Your task to perform on an android device: search for starred emails in the gmail app Image 0: 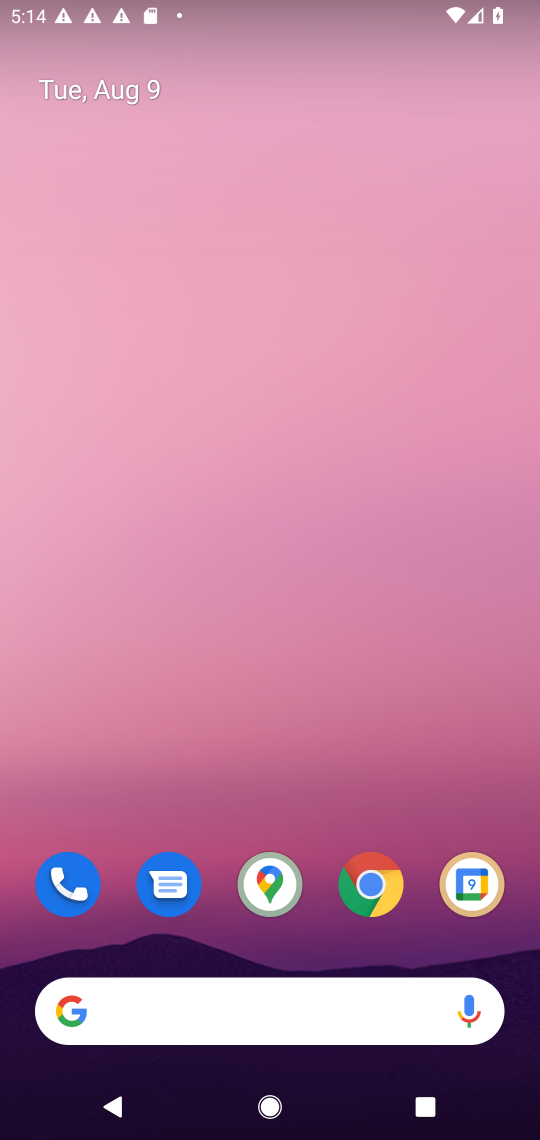
Step 0: drag from (216, 995) to (250, 201)
Your task to perform on an android device: search for starred emails in the gmail app Image 1: 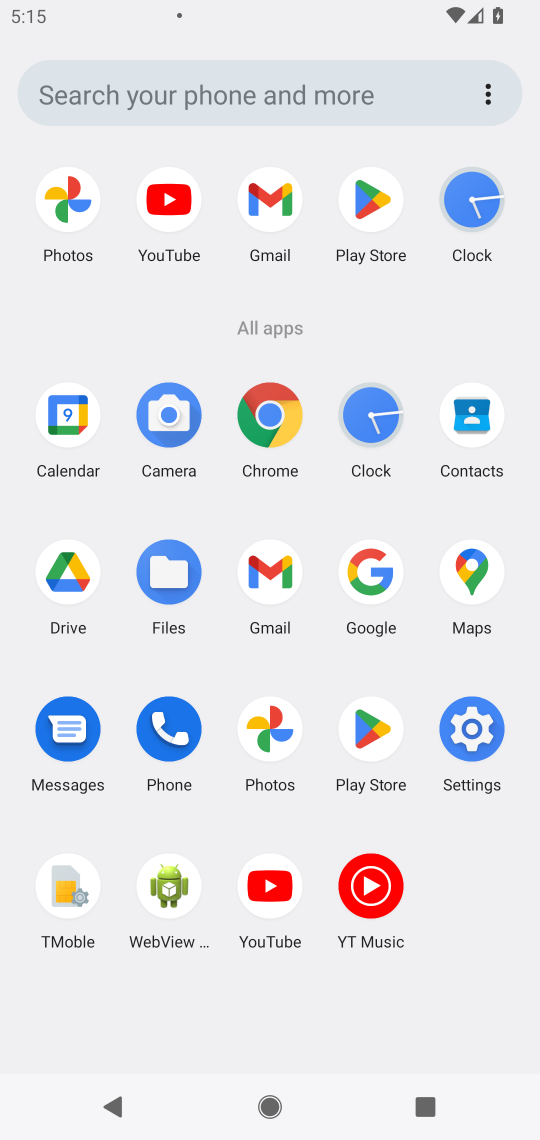
Step 1: click (270, 203)
Your task to perform on an android device: search for starred emails in the gmail app Image 2: 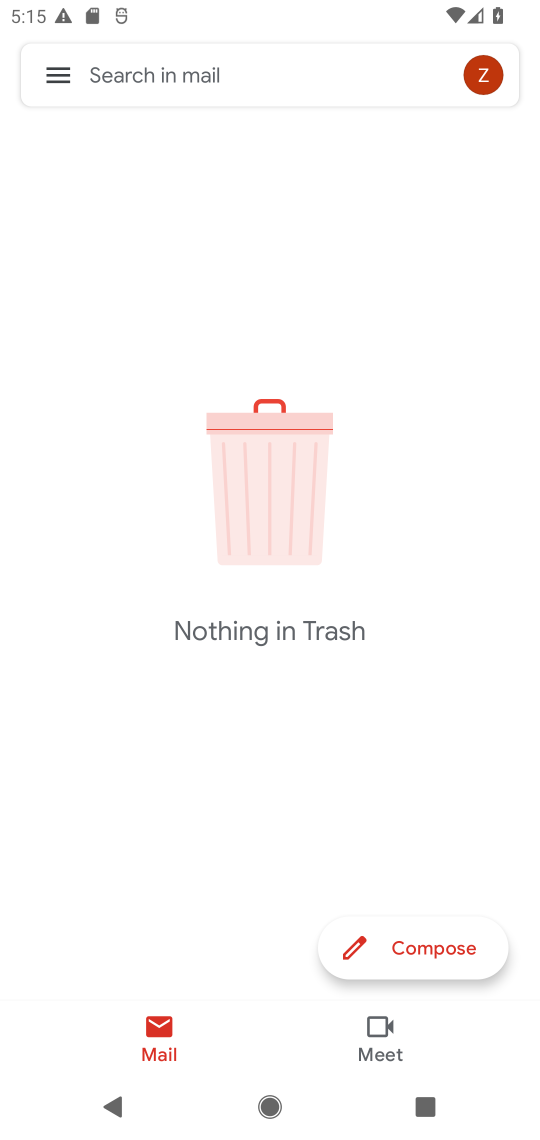
Step 2: click (64, 75)
Your task to perform on an android device: search for starred emails in the gmail app Image 3: 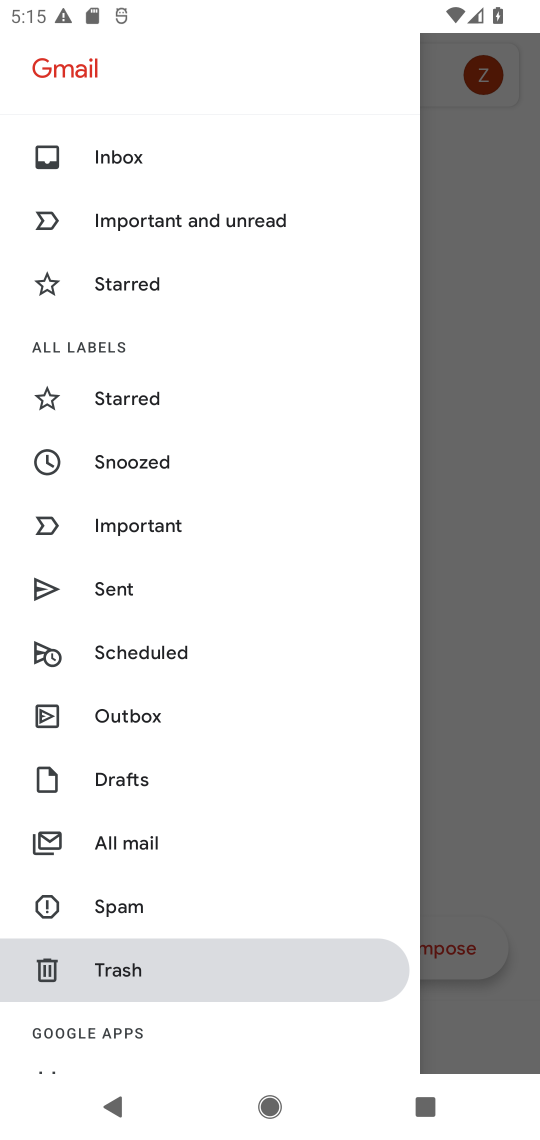
Step 3: click (135, 841)
Your task to perform on an android device: search for starred emails in the gmail app Image 4: 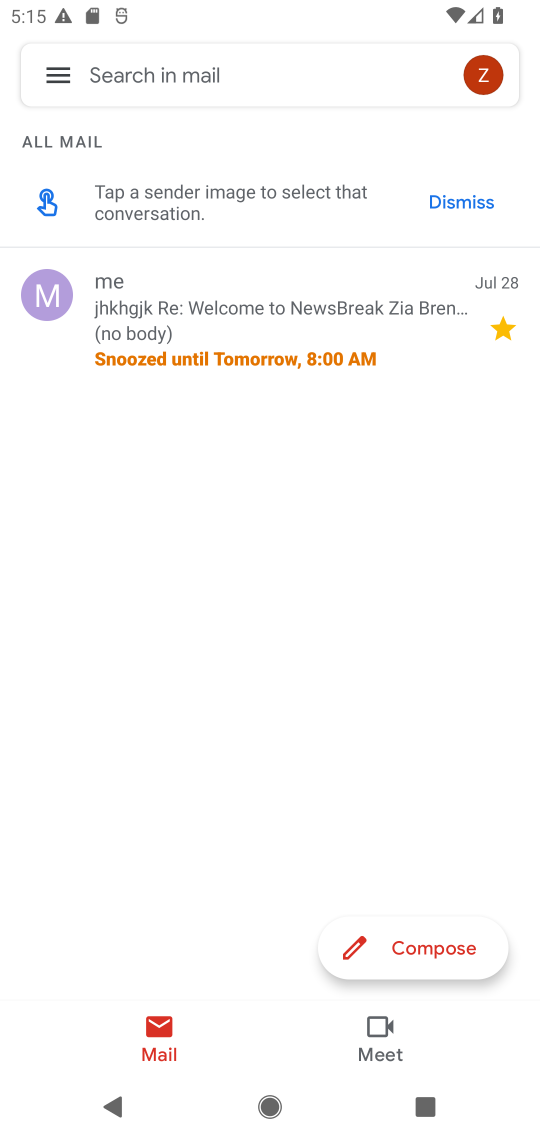
Step 4: task complete